Your task to perform on an android device: Open Google Maps Image 0: 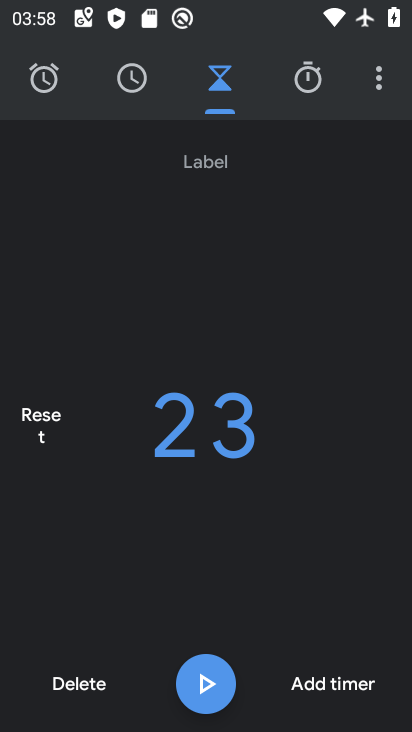
Step 0: press home button
Your task to perform on an android device: Open Google Maps Image 1: 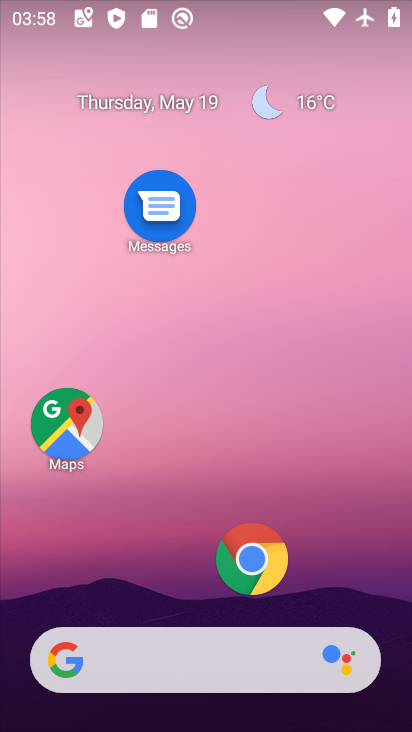
Step 1: click (56, 418)
Your task to perform on an android device: Open Google Maps Image 2: 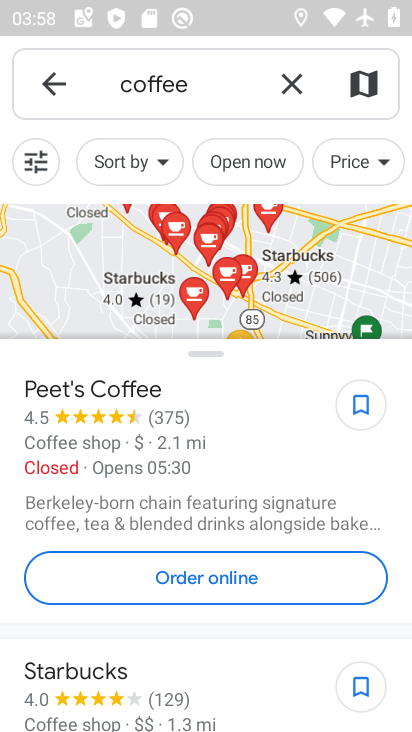
Step 2: task complete